Your task to perform on an android device: Clear all items from cart on costco. Add razer blade to the cart on costco Image 0: 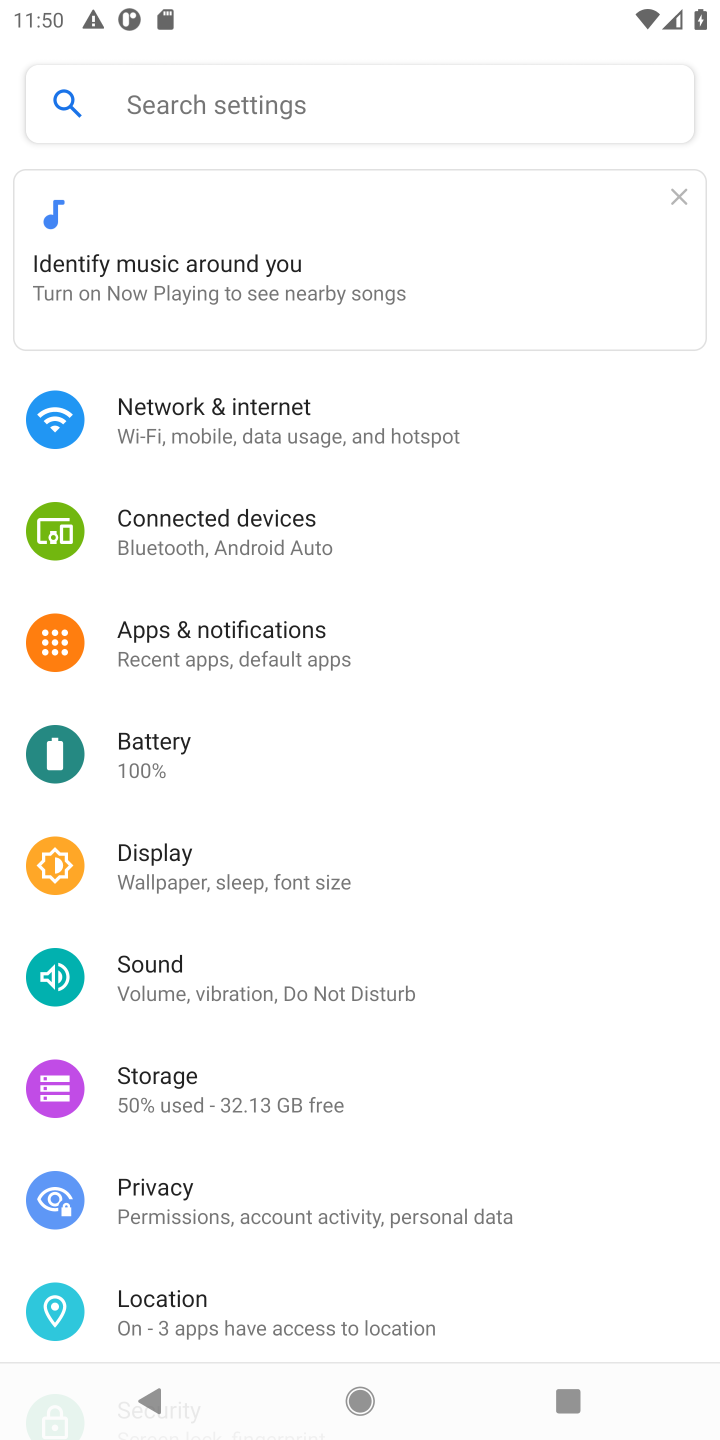
Step 0: press home button
Your task to perform on an android device: Clear all items from cart on costco. Add razer blade to the cart on costco Image 1: 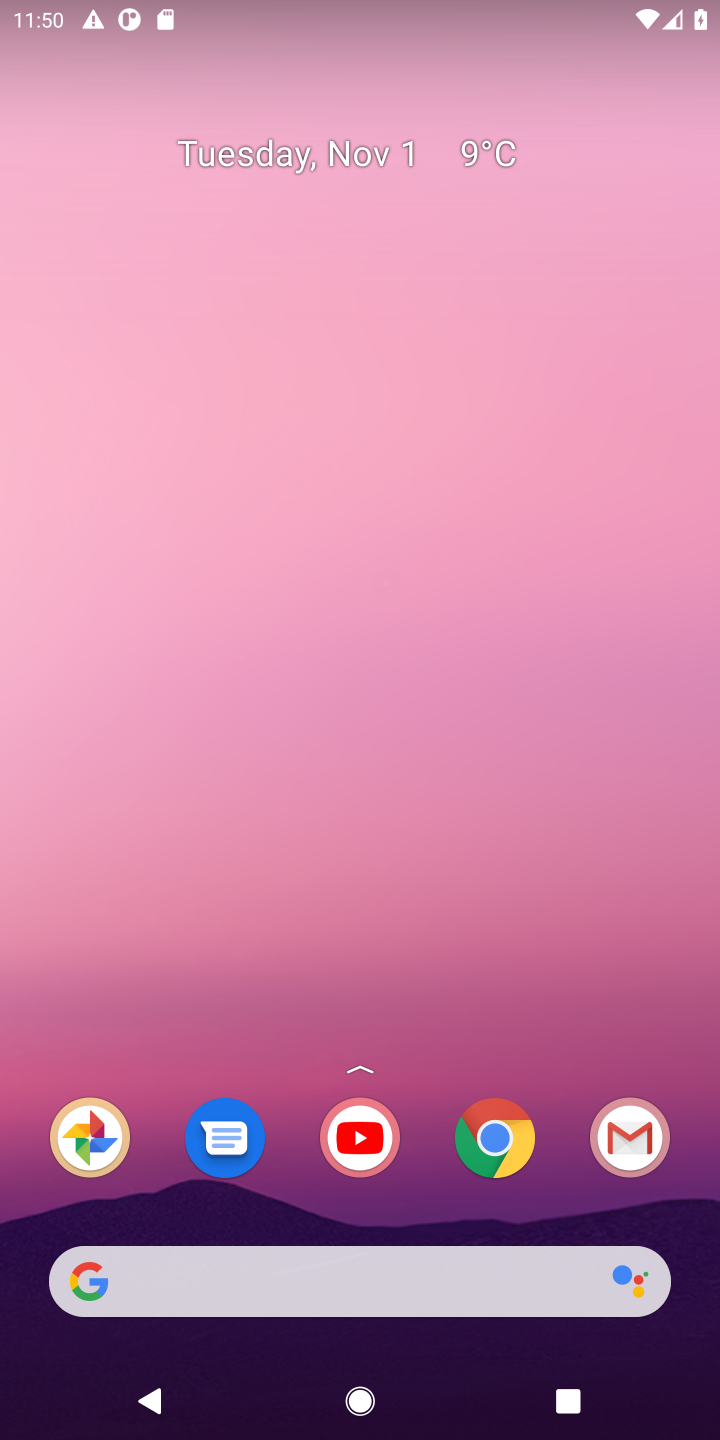
Step 1: click (300, 1250)
Your task to perform on an android device: Clear all items from cart on costco. Add razer blade to the cart on costco Image 2: 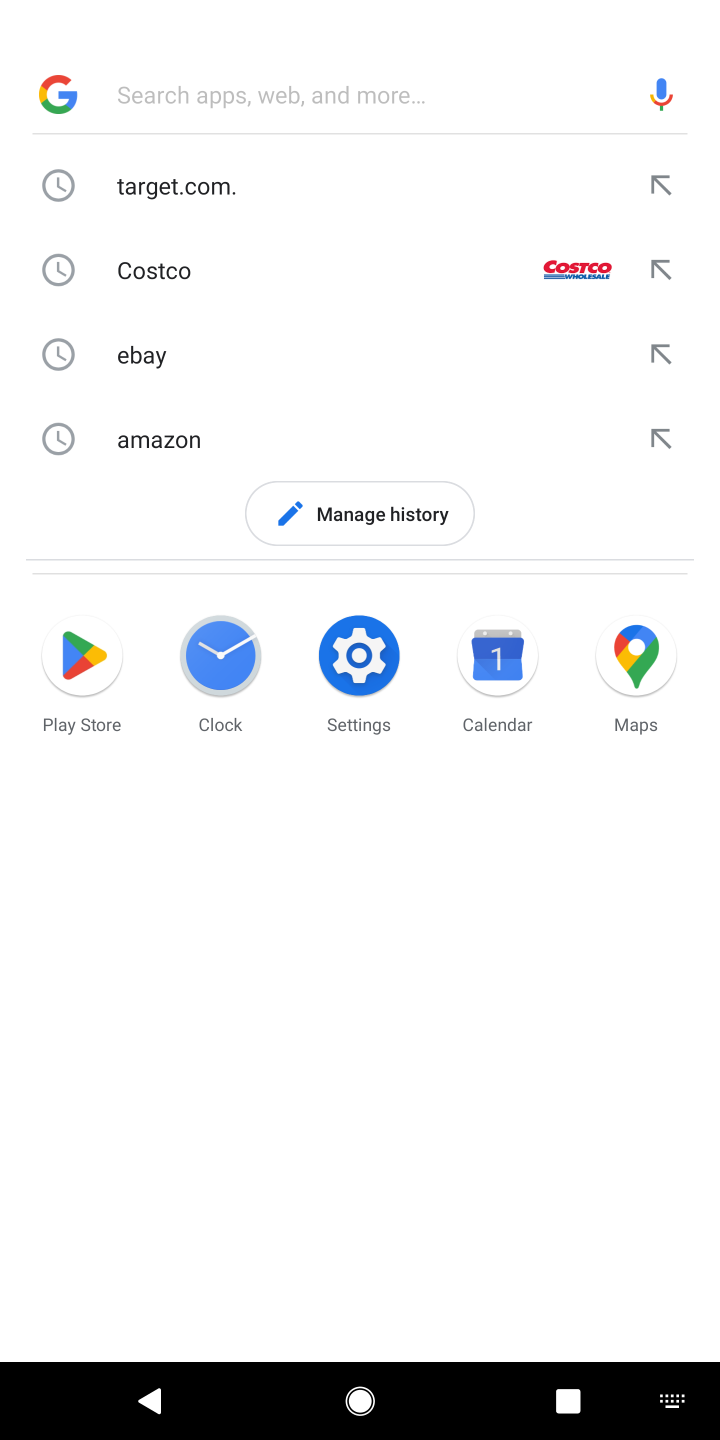
Step 2: click (197, 287)
Your task to perform on an android device: Clear all items from cart on costco. Add razer blade to the cart on costco Image 3: 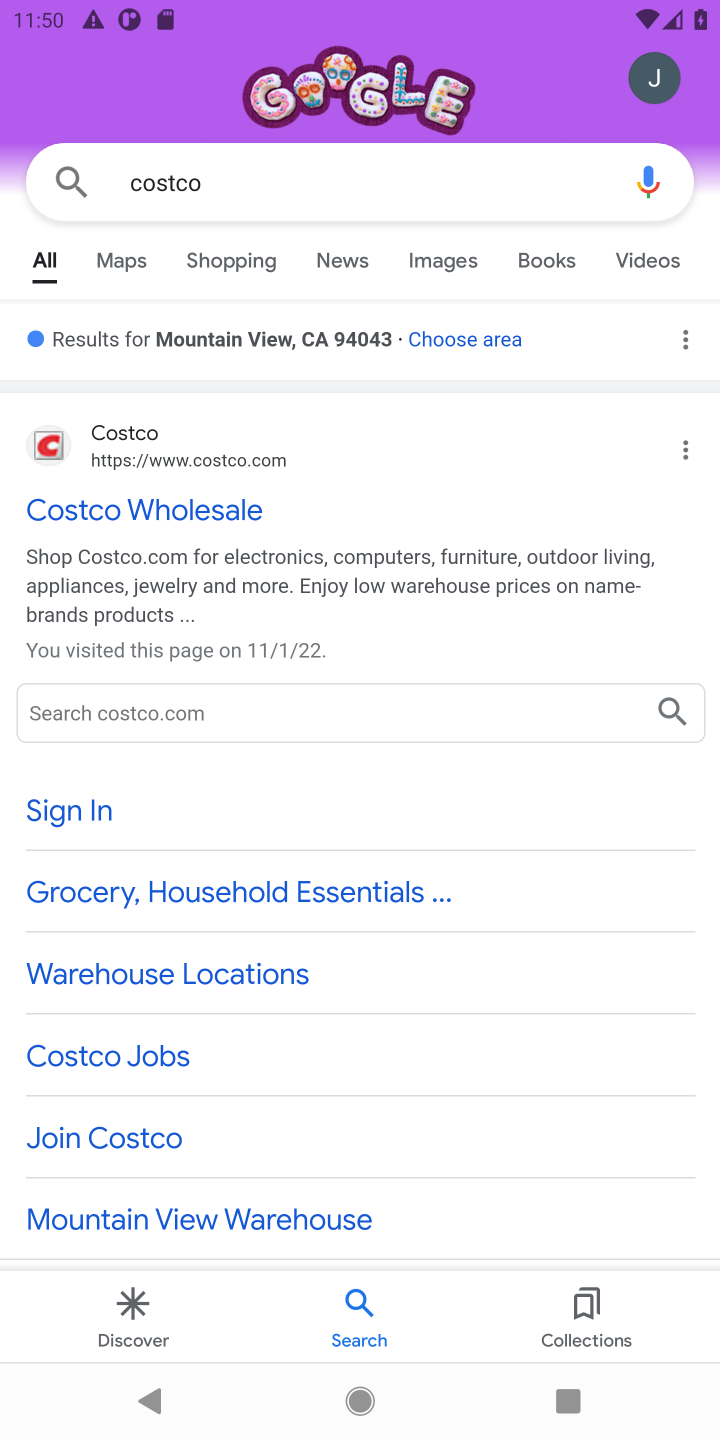
Step 3: click (185, 498)
Your task to perform on an android device: Clear all items from cart on costco. Add razer blade to the cart on costco Image 4: 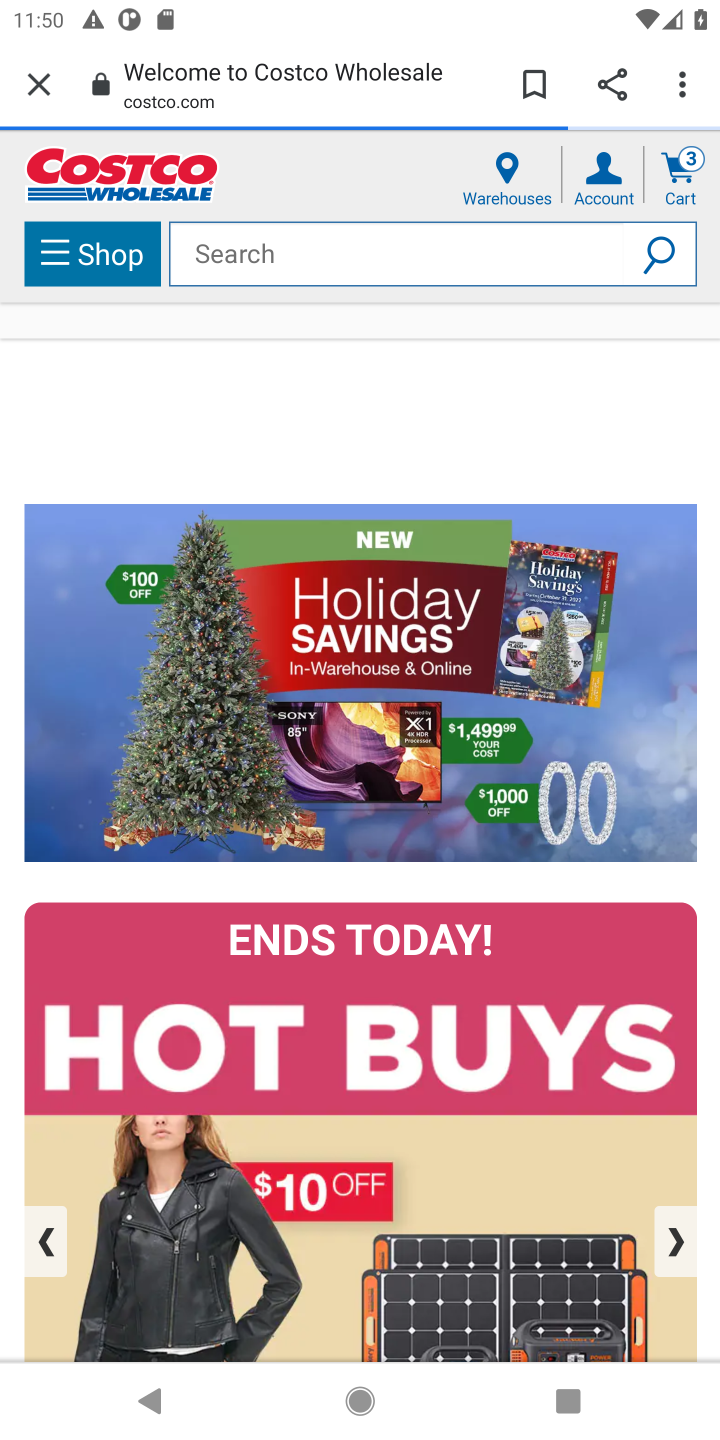
Step 4: click (261, 261)
Your task to perform on an android device: Clear all items from cart on costco. Add razer blade to the cart on costco Image 5: 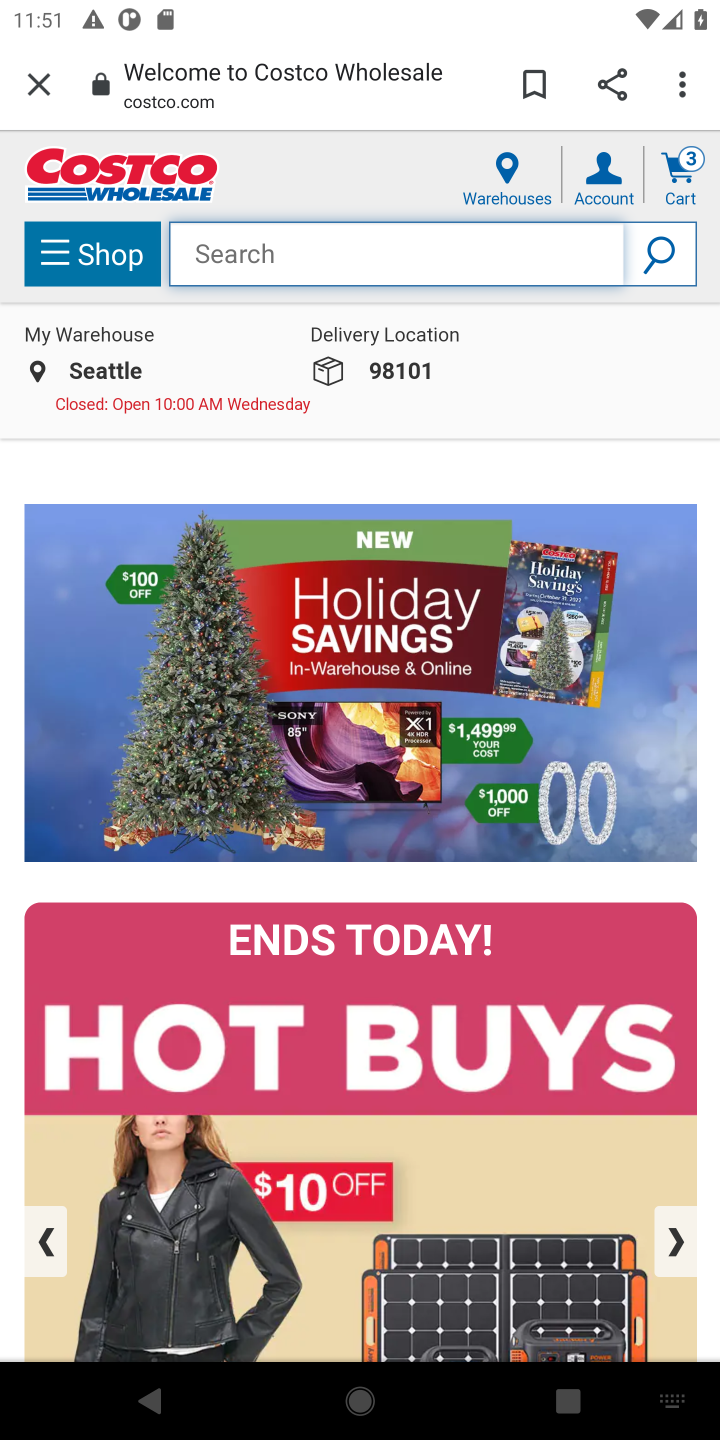
Step 5: type "razer blade"
Your task to perform on an android device: Clear all items from cart on costco. Add razer blade to the cart on costco Image 6: 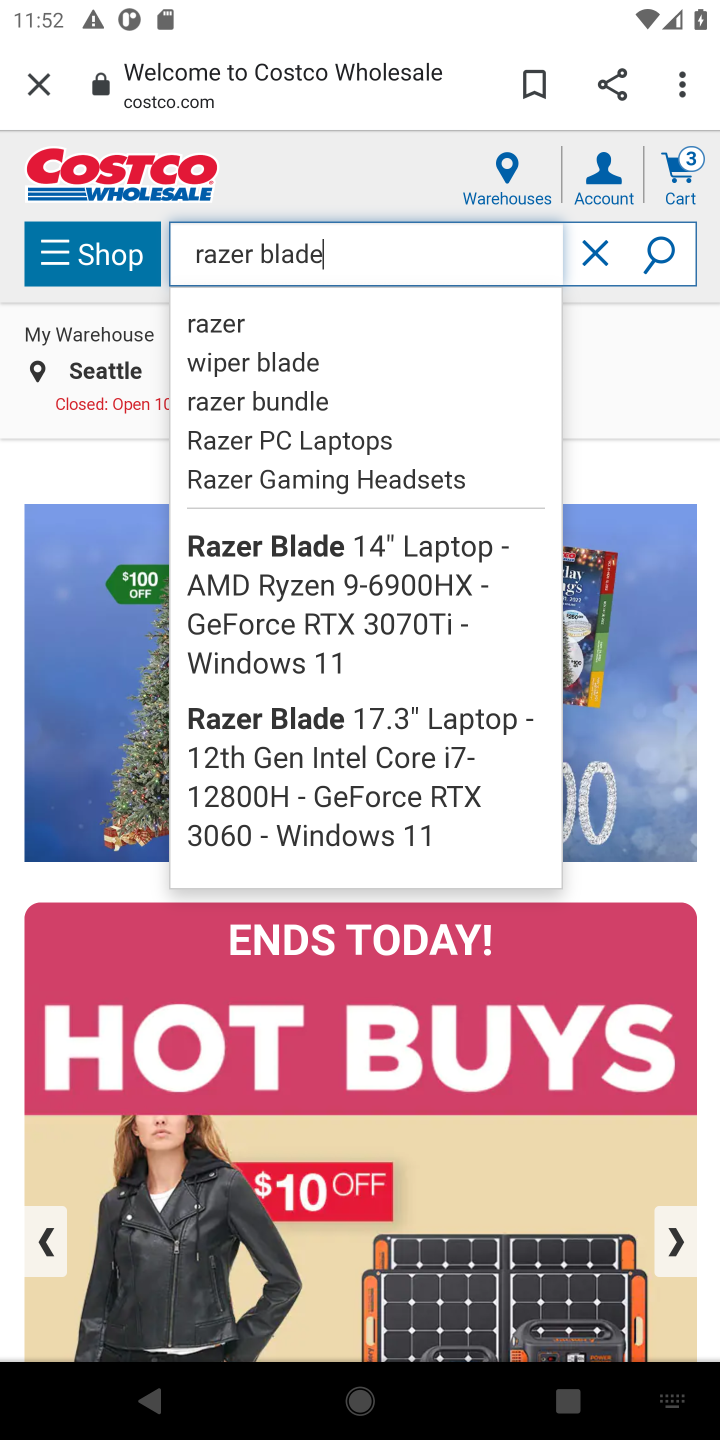
Step 6: click (324, 638)
Your task to perform on an android device: Clear all items from cart on costco. Add razer blade to the cart on costco Image 7: 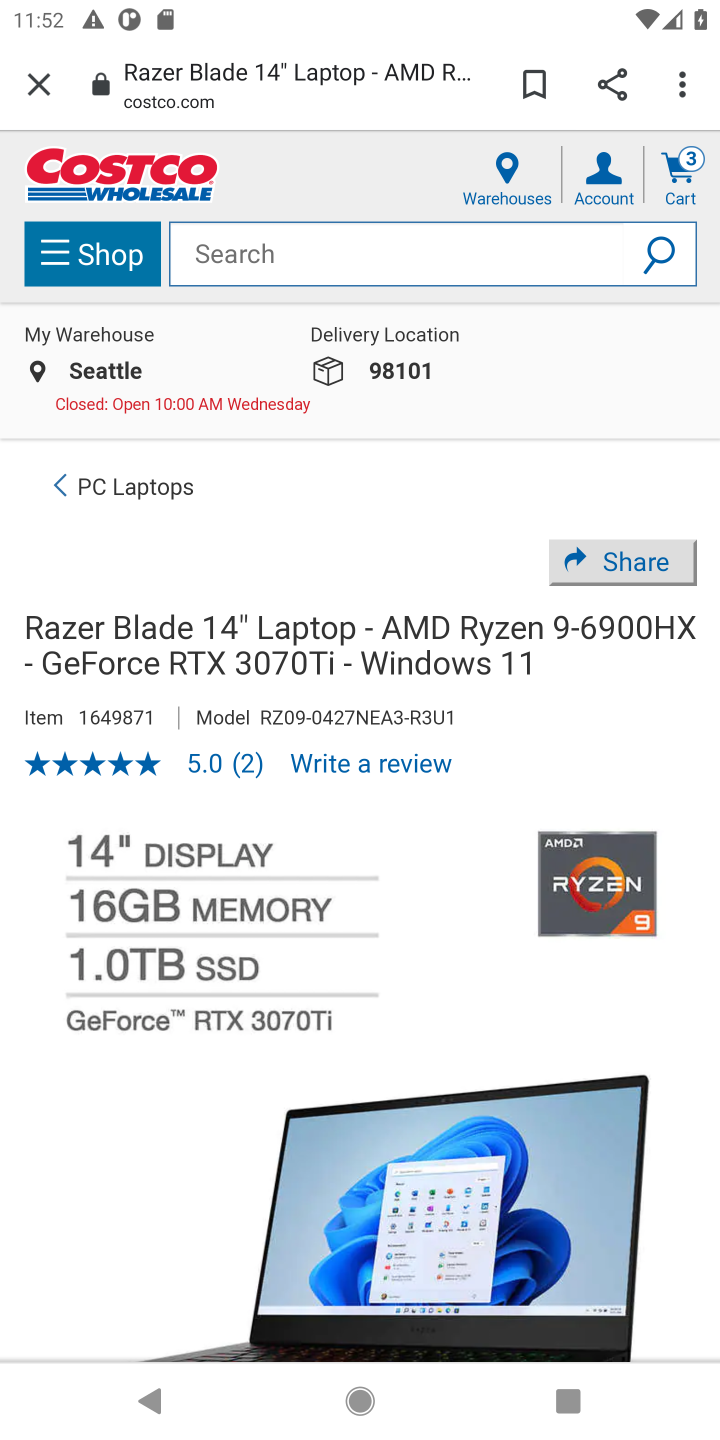
Step 7: drag from (442, 819) to (428, 282)
Your task to perform on an android device: Clear all items from cart on costco. Add razer blade to the cart on costco Image 8: 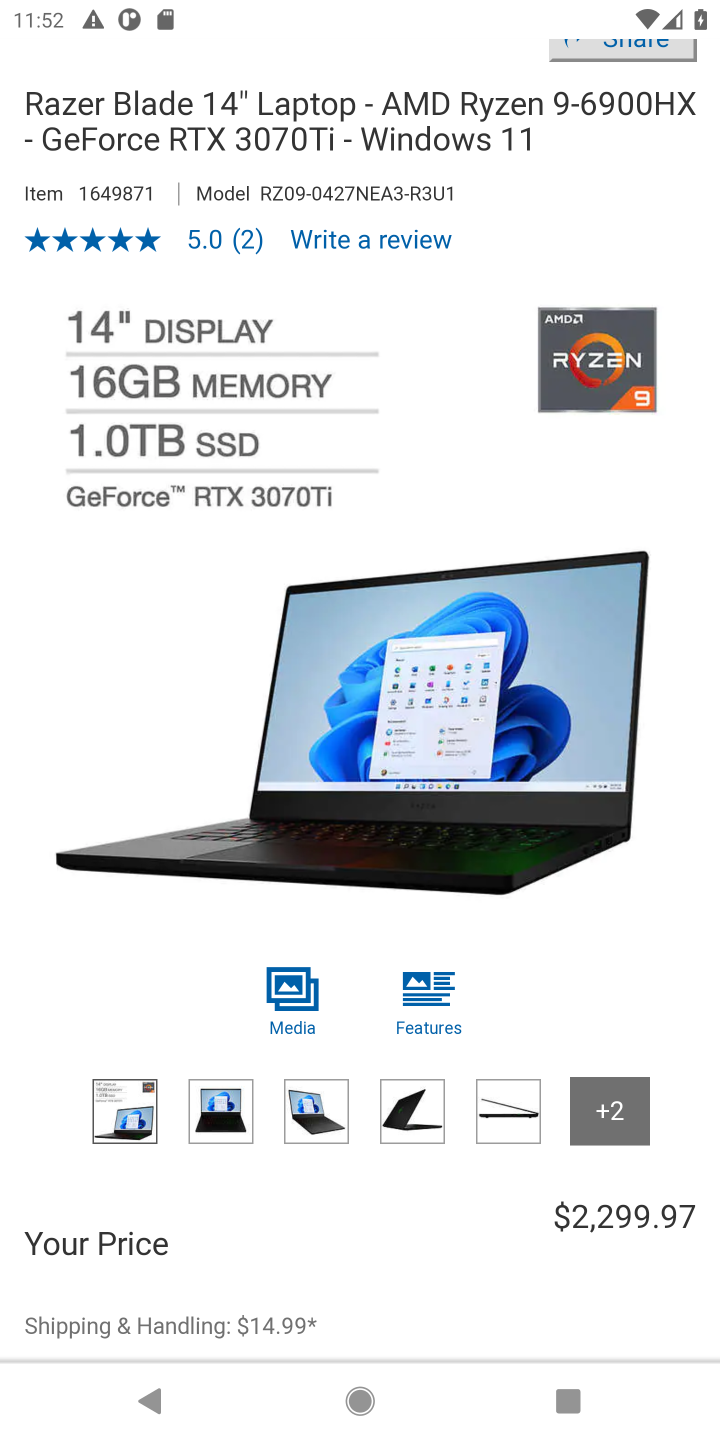
Step 8: drag from (534, 1121) to (546, 481)
Your task to perform on an android device: Clear all items from cart on costco. Add razer blade to the cart on costco Image 9: 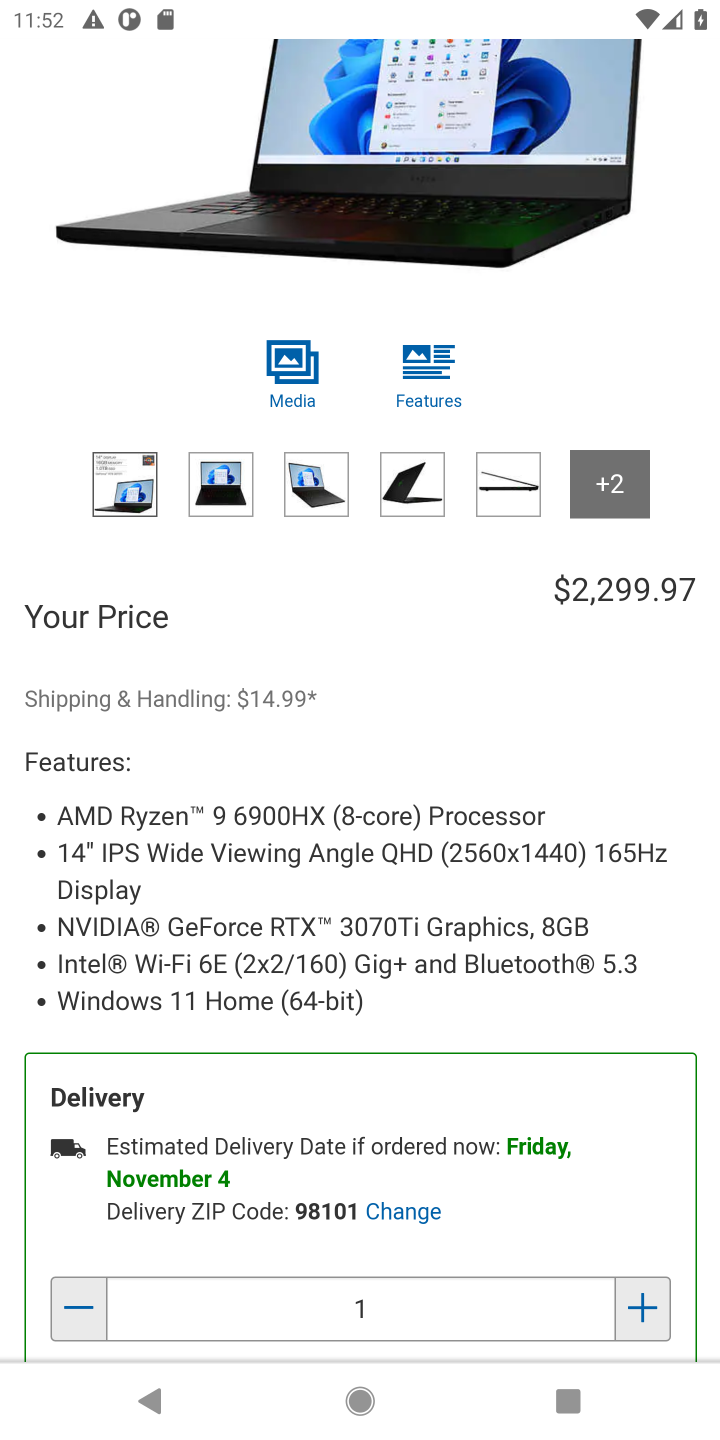
Step 9: drag from (297, 878) to (287, 386)
Your task to perform on an android device: Clear all items from cart on costco. Add razer blade to the cart on costco Image 10: 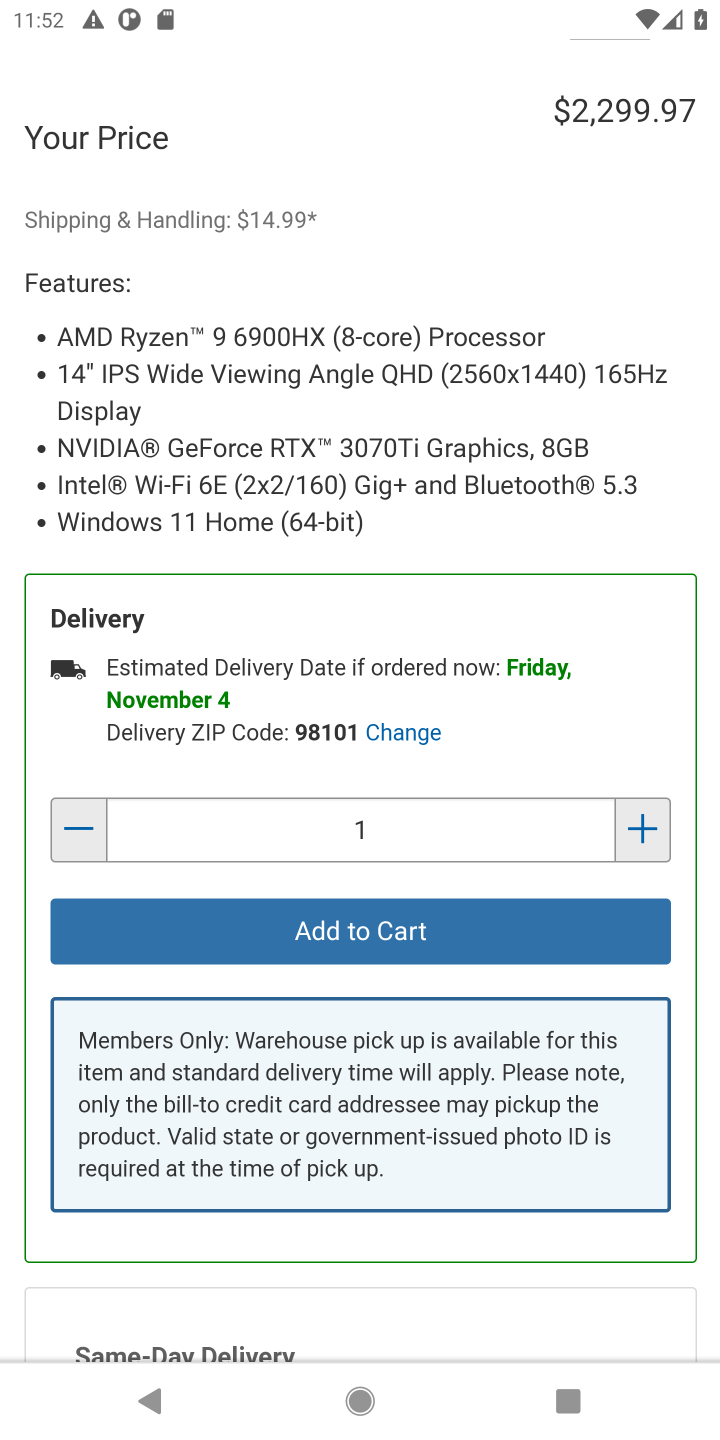
Step 10: click (315, 924)
Your task to perform on an android device: Clear all items from cart on costco. Add razer blade to the cart on costco Image 11: 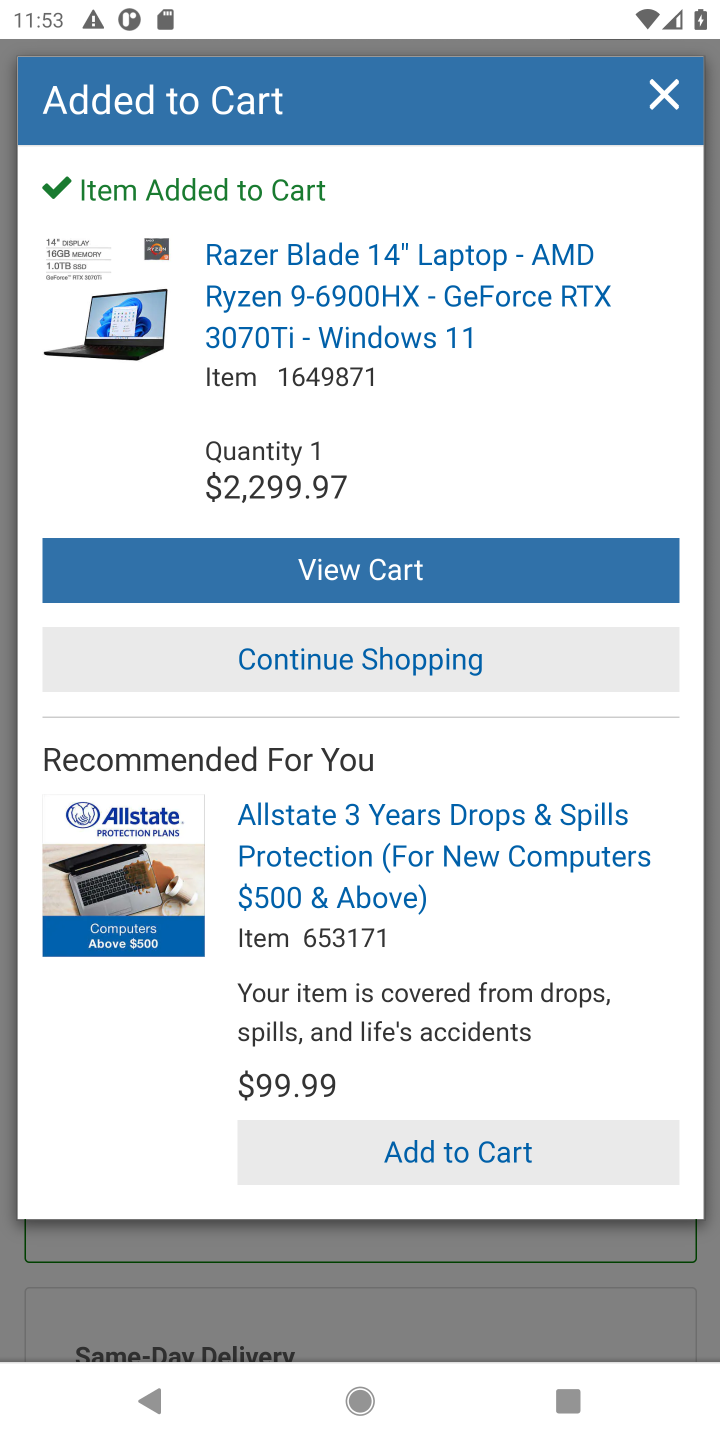
Step 11: task complete